Your task to perform on an android device: open a bookmark in the chrome app Image 0: 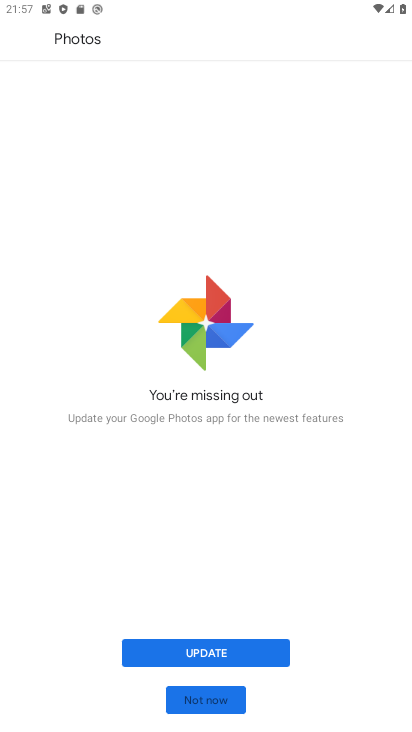
Step 0: press home button
Your task to perform on an android device: open a bookmark in the chrome app Image 1: 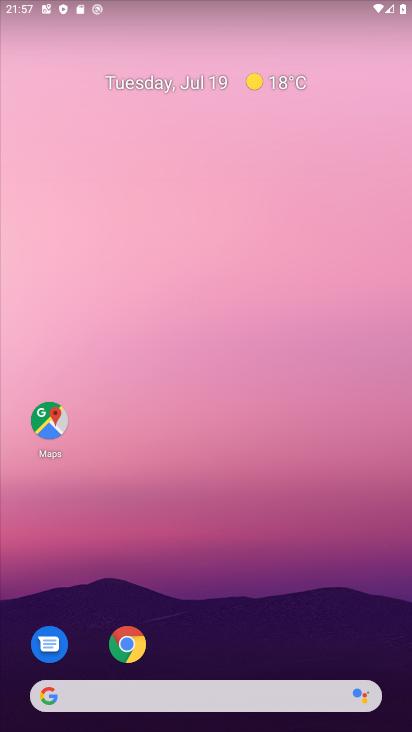
Step 1: drag from (222, 700) to (224, 293)
Your task to perform on an android device: open a bookmark in the chrome app Image 2: 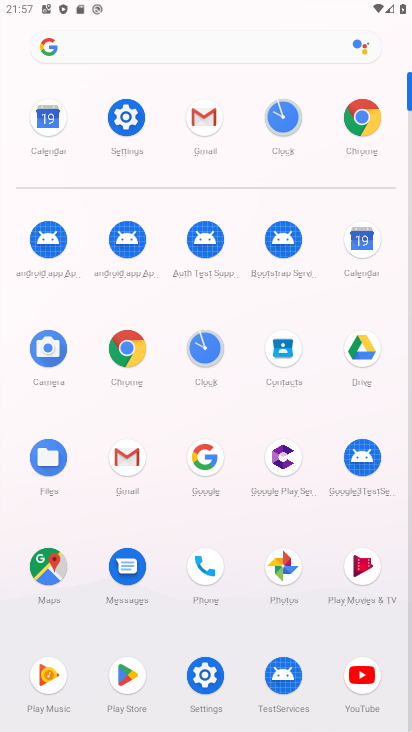
Step 2: click (129, 359)
Your task to perform on an android device: open a bookmark in the chrome app Image 3: 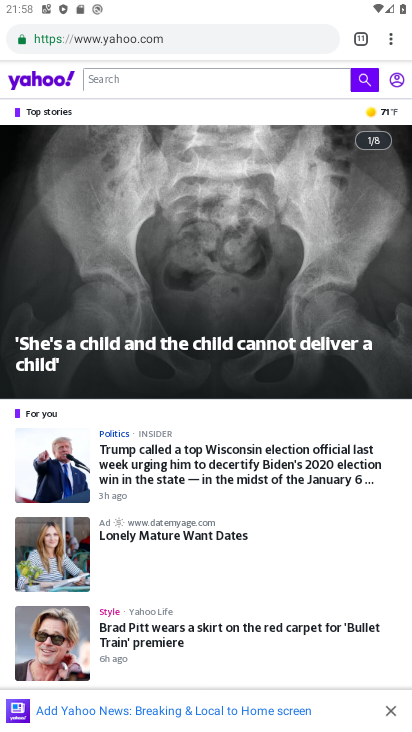
Step 3: click (392, 44)
Your task to perform on an android device: open a bookmark in the chrome app Image 4: 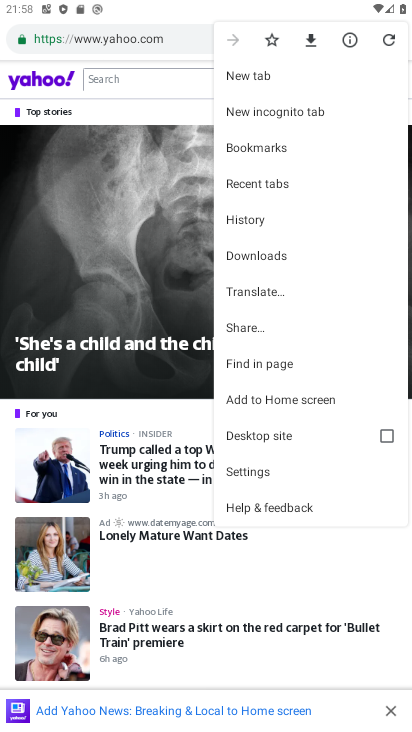
Step 4: click (258, 143)
Your task to perform on an android device: open a bookmark in the chrome app Image 5: 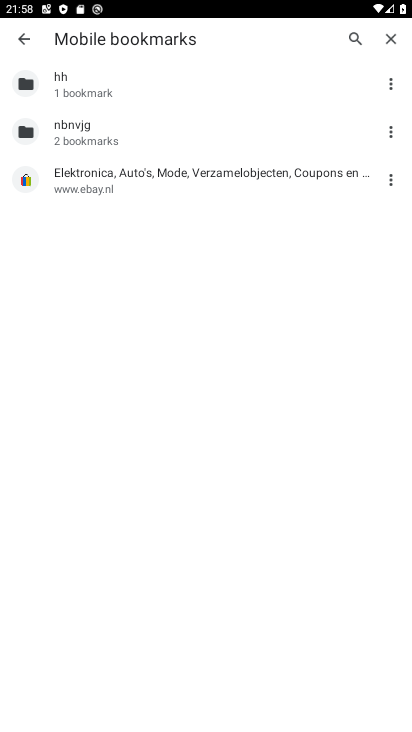
Step 5: click (72, 175)
Your task to perform on an android device: open a bookmark in the chrome app Image 6: 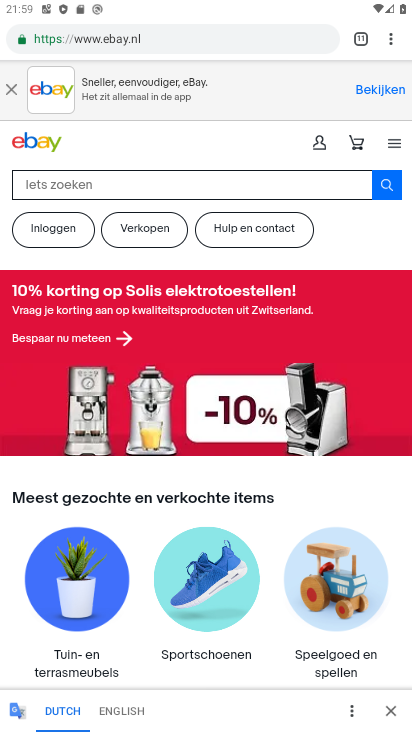
Step 6: task complete